Your task to perform on an android device: Search for pizza restaurants on Maps Image 0: 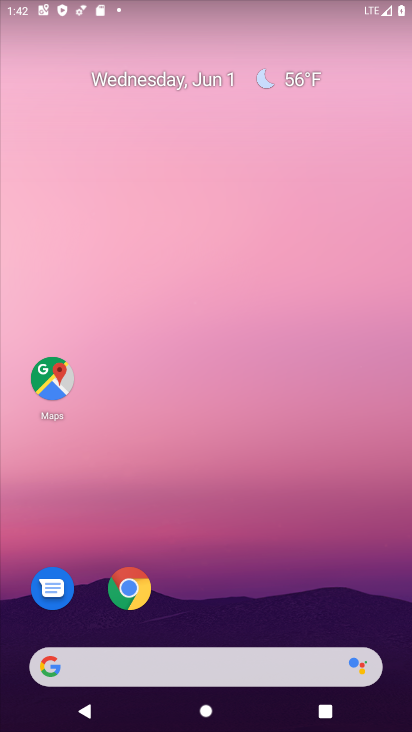
Step 0: click (62, 383)
Your task to perform on an android device: Search for pizza restaurants on Maps Image 1: 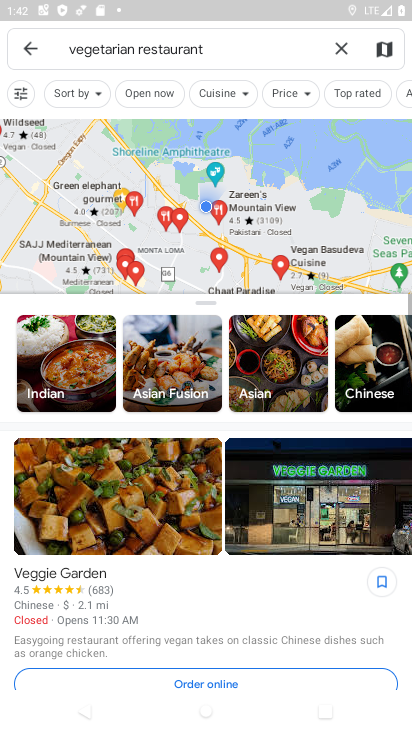
Step 1: click (336, 44)
Your task to perform on an android device: Search for pizza restaurants on Maps Image 2: 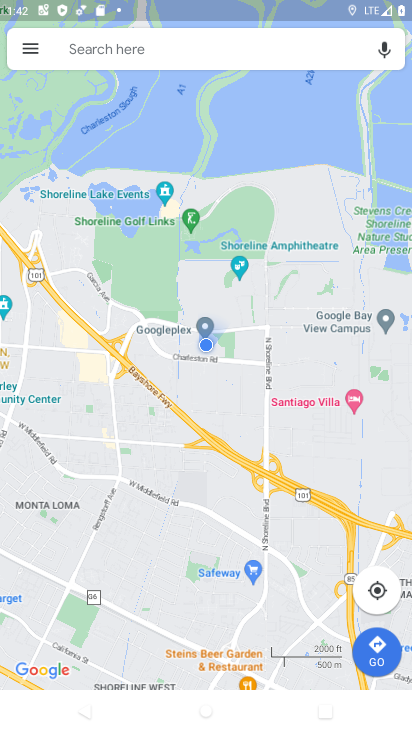
Step 2: click (159, 43)
Your task to perform on an android device: Search for pizza restaurants on Maps Image 3: 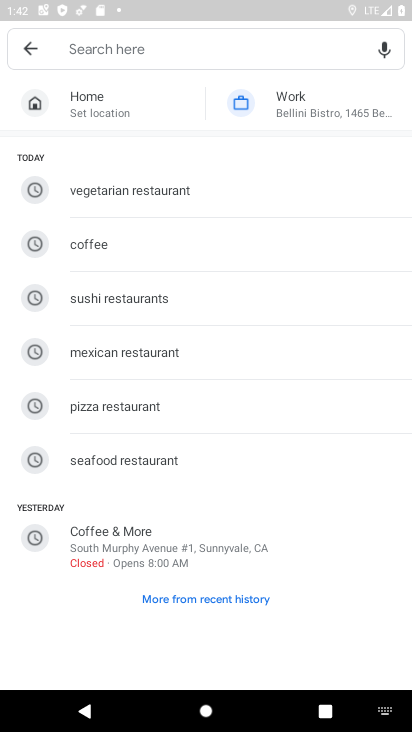
Step 3: click (135, 400)
Your task to perform on an android device: Search for pizza restaurants on Maps Image 4: 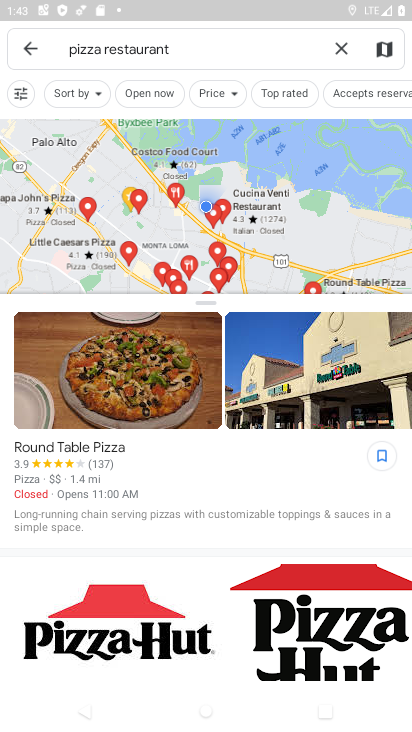
Step 4: task complete